Your task to perform on an android device: open chrome privacy settings Image 0: 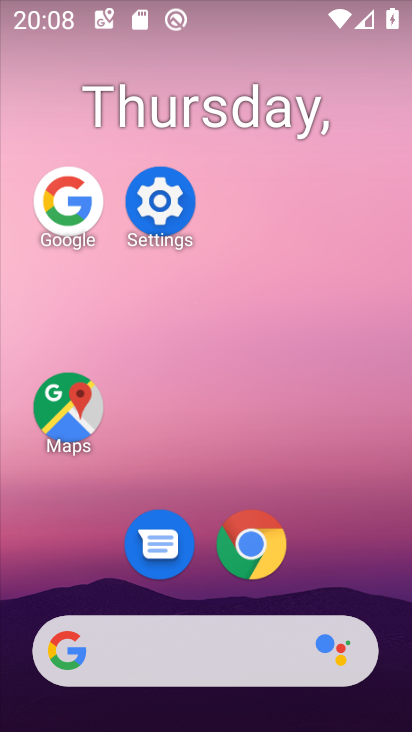
Step 0: press home button
Your task to perform on an android device: open chrome privacy settings Image 1: 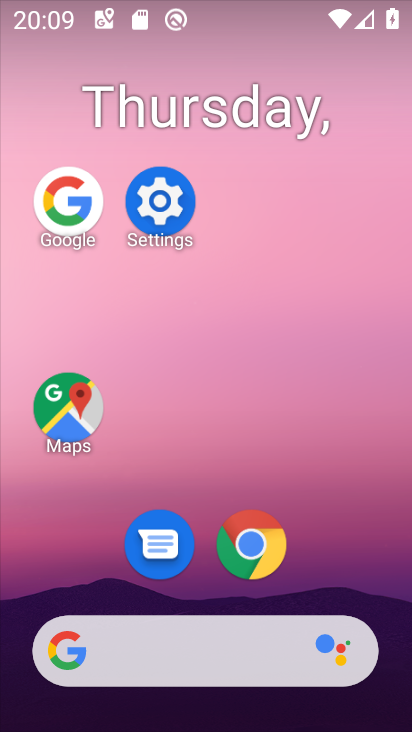
Step 1: click (240, 685)
Your task to perform on an android device: open chrome privacy settings Image 2: 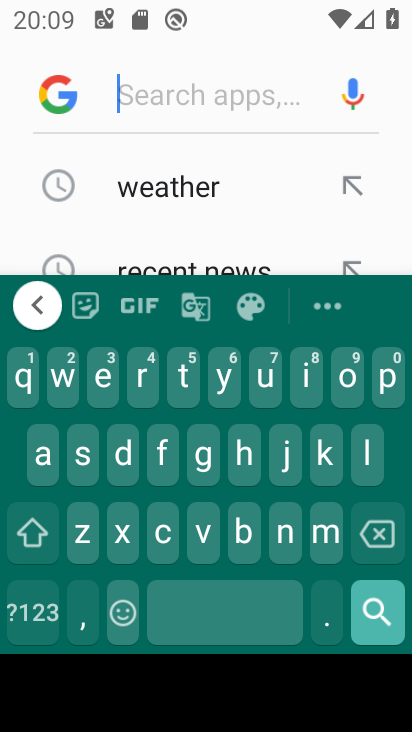
Step 2: press home button
Your task to perform on an android device: open chrome privacy settings Image 3: 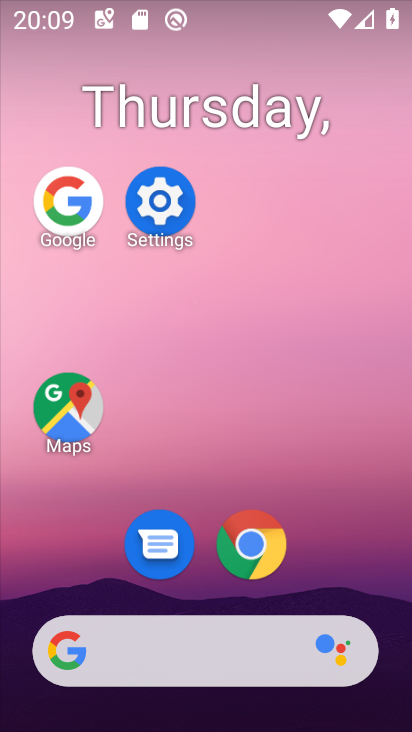
Step 3: drag from (222, 693) to (303, 1)
Your task to perform on an android device: open chrome privacy settings Image 4: 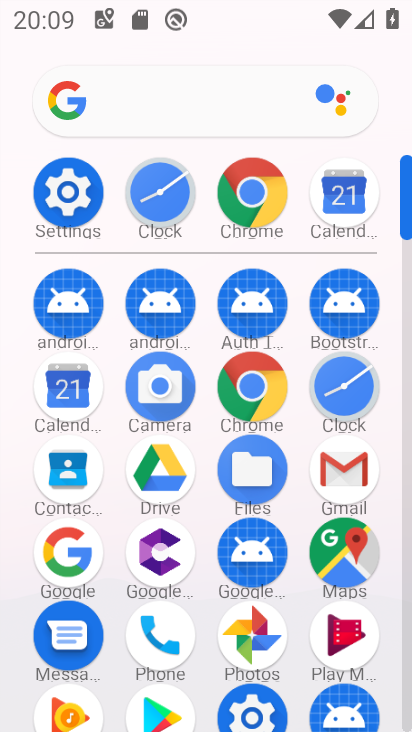
Step 4: click (242, 188)
Your task to perform on an android device: open chrome privacy settings Image 5: 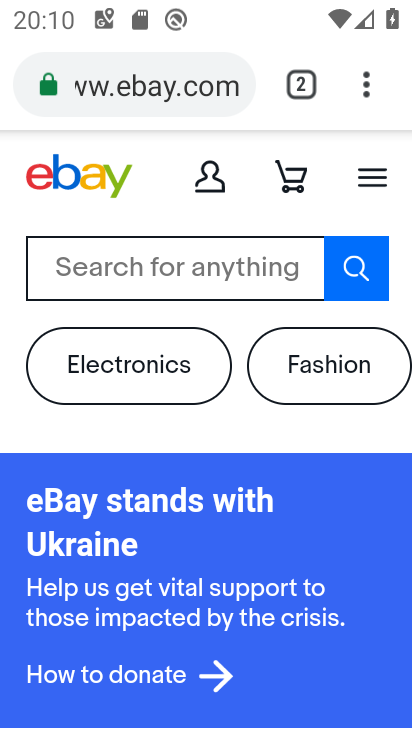
Step 5: click (369, 85)
Your task to perform on an android device: open chrome privacy settings Image 6: 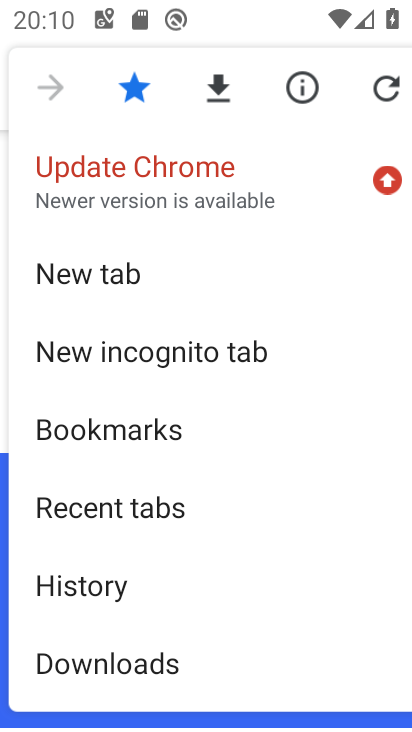
Step 6: drag from (184, 597) to (221, 61)
Your task to perform on an android device: open chrome privacy settings Image 7: 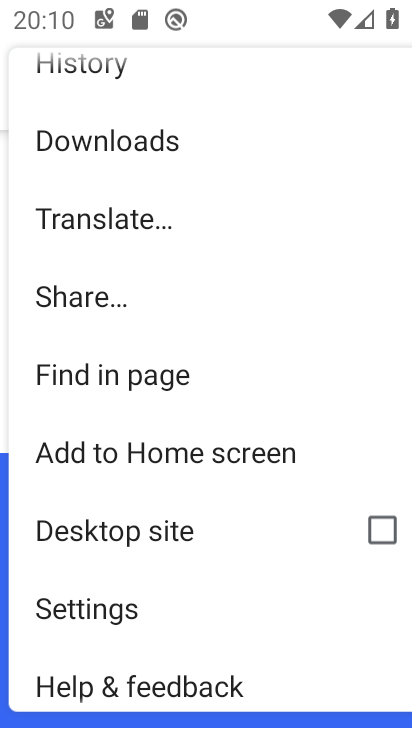
Step 7: click (102, 609)
Your task to perform on an android device: open chrome privacy settings Image 8: 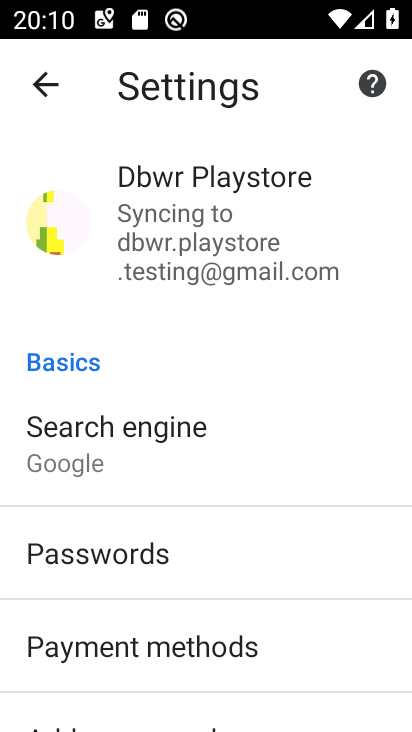
Step 8: task complete